Your task to perform on an android device: turn on wifi Image 0: 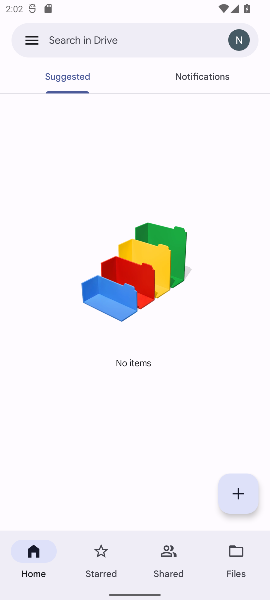
Step 0: task complete